Your task to perform on an android device: What's the weather today? Image 0: 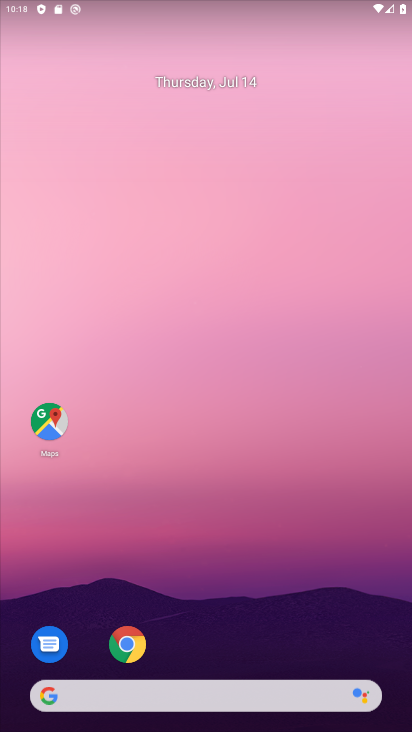
Step 0: drag from (130, 639) to (169, 123)
Your task to perform on an android device: What's the weather today? Image 1: 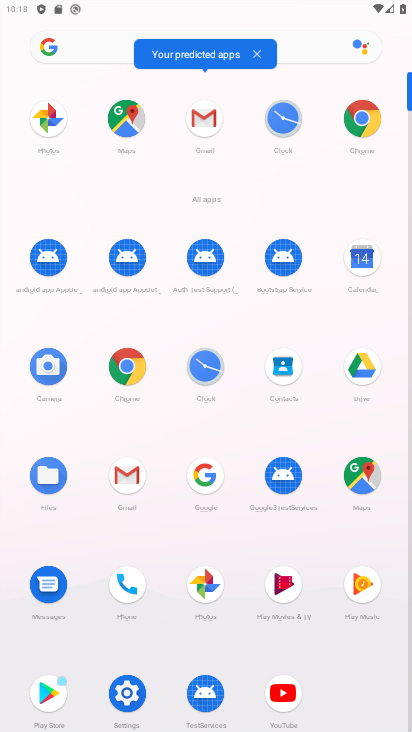
Step 1: click (375, 107)
Your task to perform on an android device: What's the weather today? Image 2: 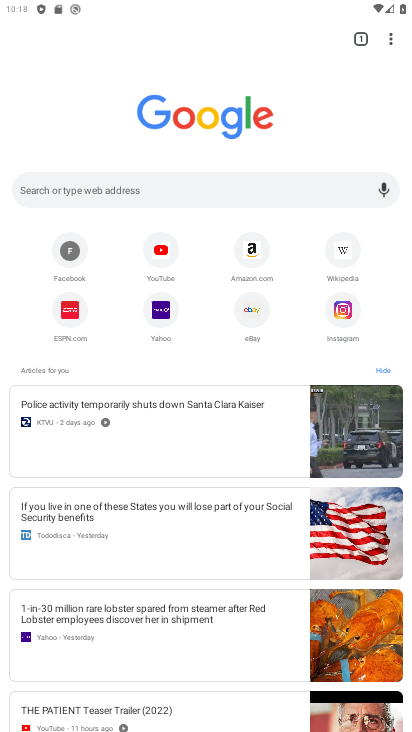
Step 2: click (193, 186)
Your task to perform on an android device: What's the weather today? Image 3: 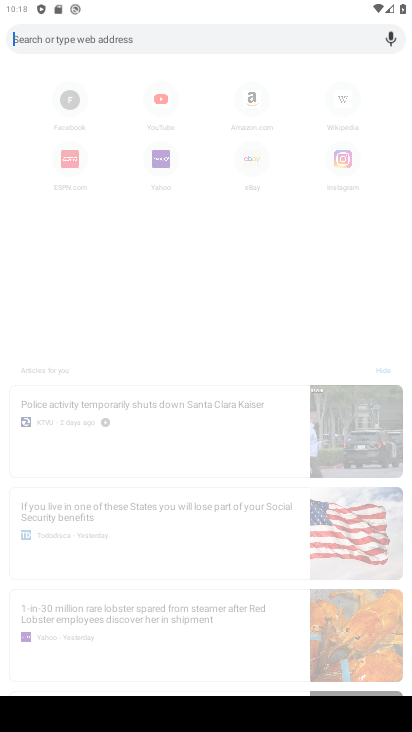
Step 3: type "weather today"
Your task to perform on an android device: What's the weather today? Image 4: 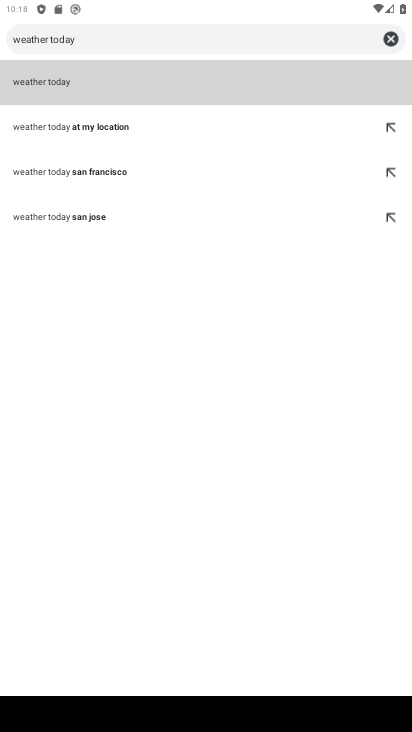
Step 4: click (112, 76)
Your task to perform on an android device: What's the weather today? Image 5: 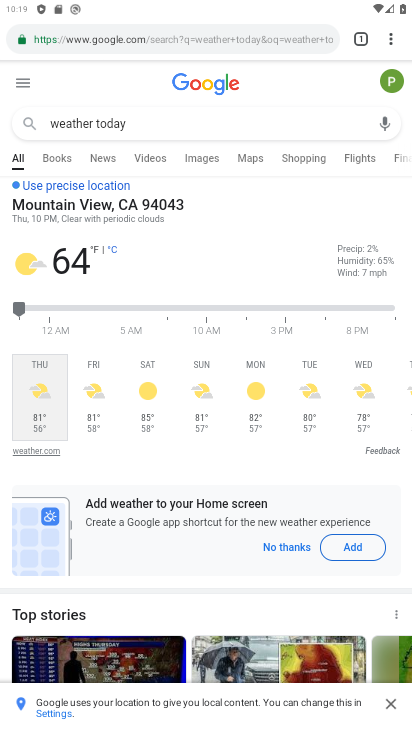
Step 5: task complete